Your task to perform on an android device: Open internet settings Image 0: 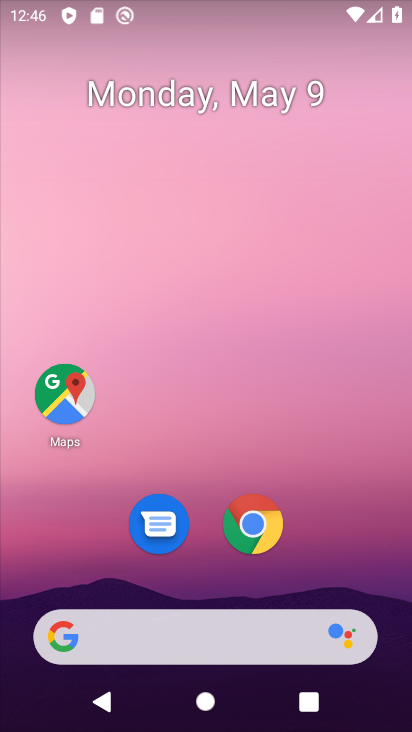
Step 0: drag from (325, 548) to (316, 0)
Your task to perform on an android device: Open internet settings Image 1: 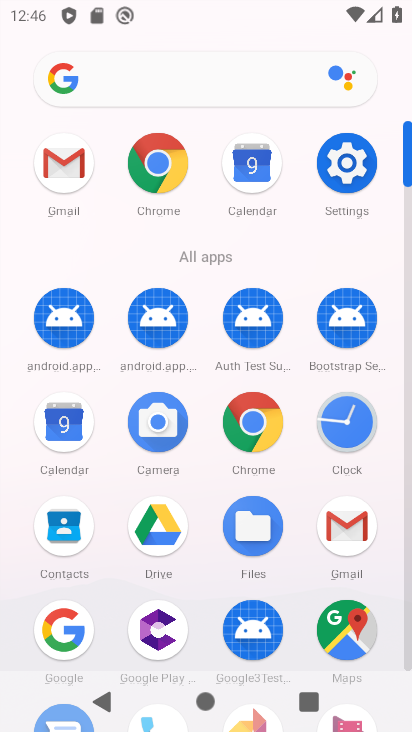
Step 1: click (339, 171)
Your task to perform on an android device: Open internet settings Image 2: 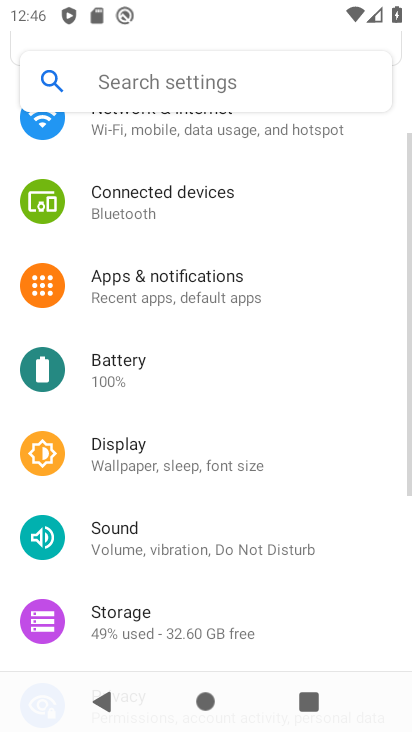
Step 2: drag from (332, 171) to (291, 440)
Your task to perform on an android device: Open internet settings Image 3: 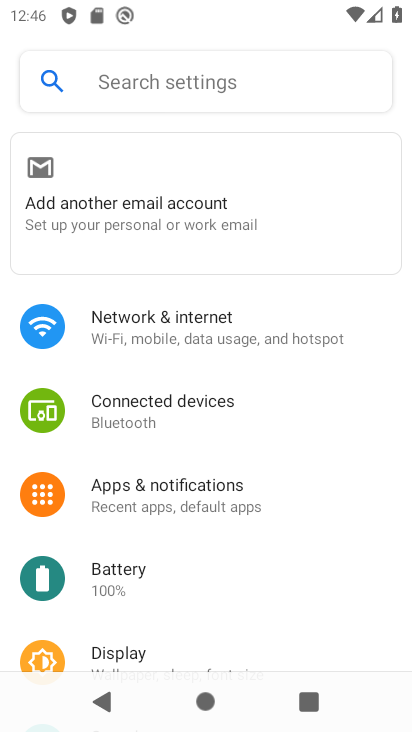
Step 3: click (255, 332)
Your task to perform on an android device: Open internet settings Image 4: 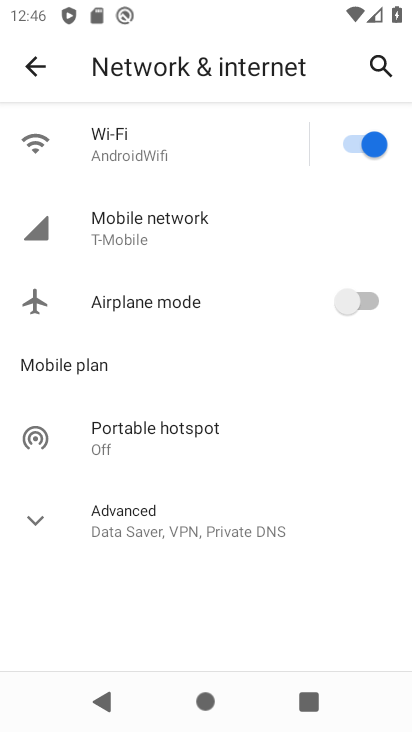
Step 4: task complete